Your task to perform on an android device: Go to Yahoo.com Image 0: 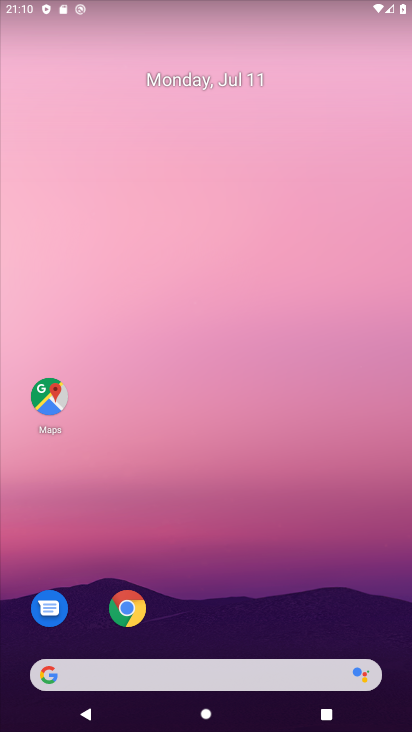
Step 0: click (176, 50)
Your task to perform on an android device: Go to Yahoo.com Image 1: 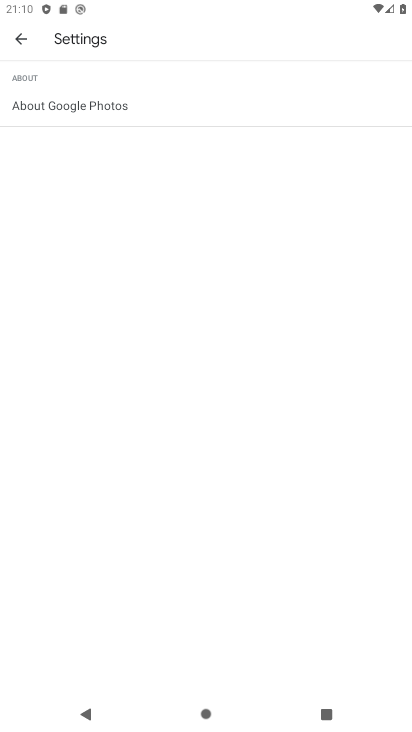
Step 1: press home button
Your task to perform on an android device: Go to Yahoo.com Image 2: 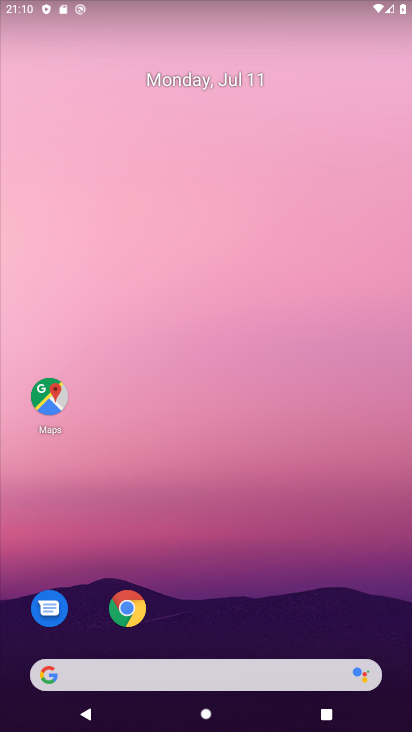
Step 2: click (126, 604)
Your task to perform on an android device: Go to Yahoo.com Image 3: 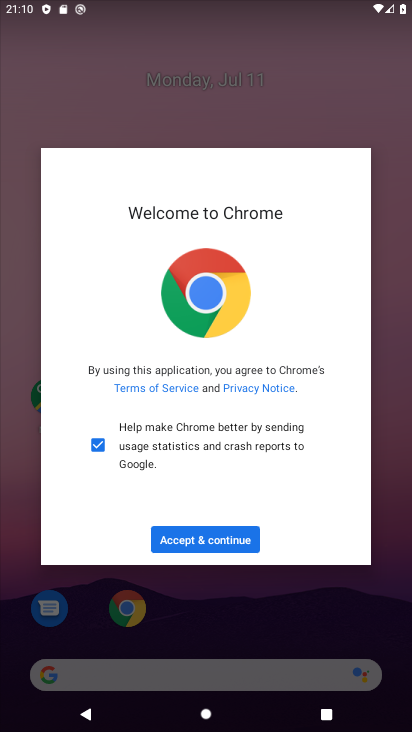
Step 3: click (189, 537)
Your task to perform on an android device: Go to Yahoo.com Image 4: 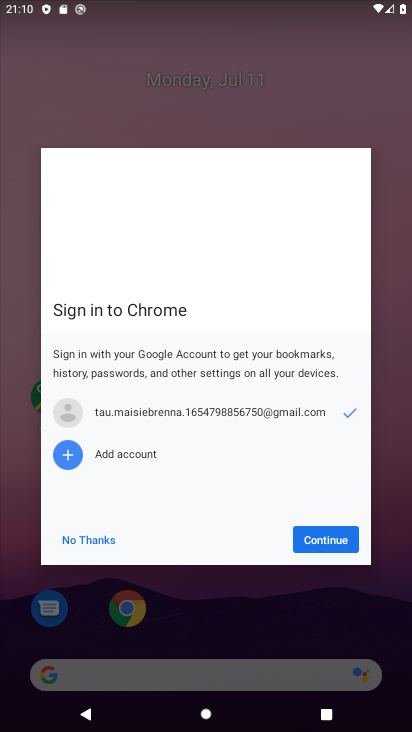
Step 4: click (314, 545)
Your task to perform on an android device: Go to Yahoo.com Image 5: 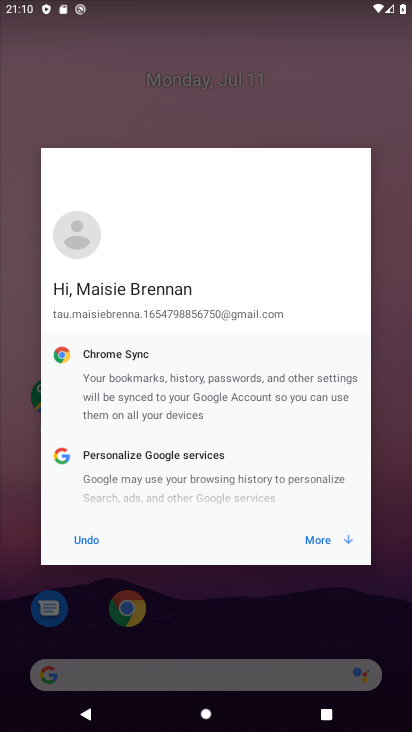
Step 5: click (314, 545)
Your task to perform on an android device: Go to Yahoo.com Image 6: 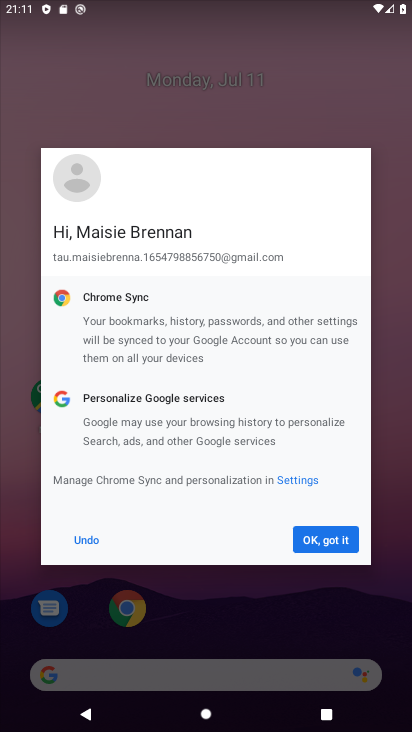
Step 6: click (314, 545)
Your task to perform on an android device: Go to Yahoo.com Image 7: 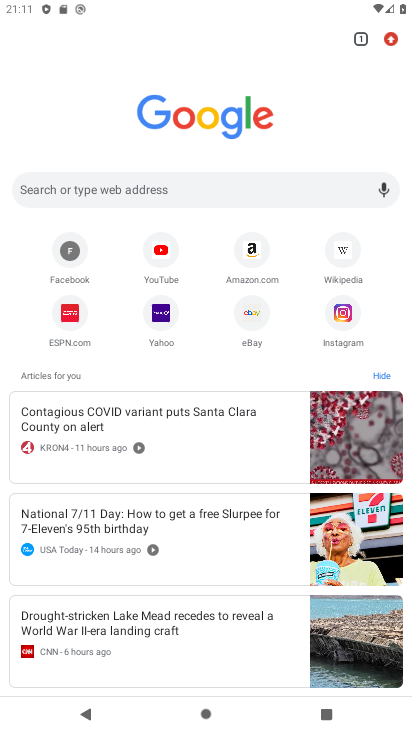
Step 7: click (162, 322)
Your task to perform on an android device: Go to Yahoo.com Image 8: 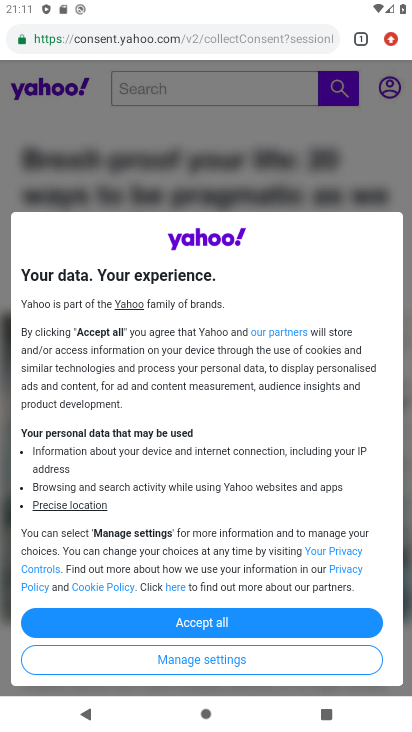
Step 8: click (207, 623)
Your task to perform on an android device: Go to Yahoo.com Image 9: 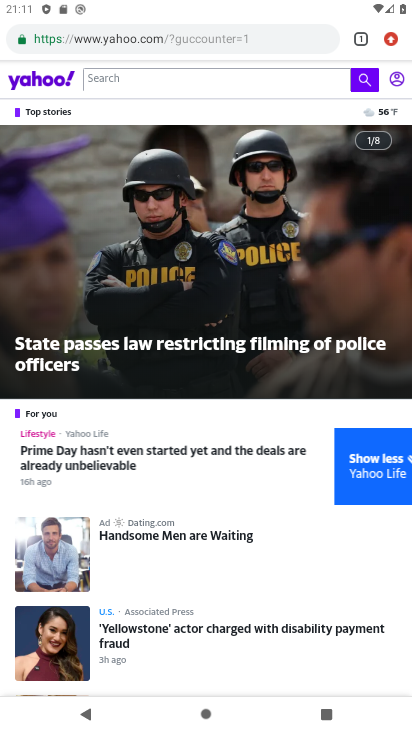
Step 9: task complete